Your task to perform on an android device: Is it going to rain today? Image 0: 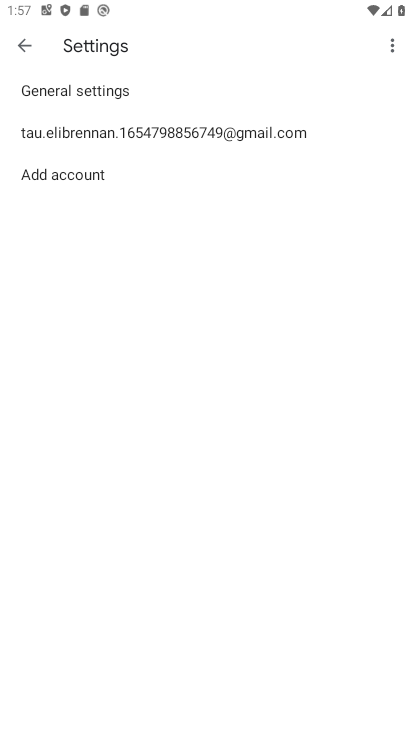
Step 0: press home button
Your task to perform on an android device: Is it going to rain today? Image 1: 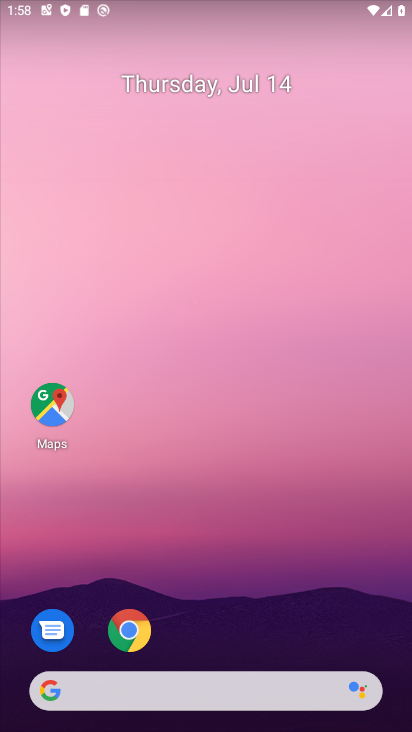
Step 1: drag from (311, 657) to (298, 157)
Your task to perform on an android device: Is it going to rain today? Image 2: 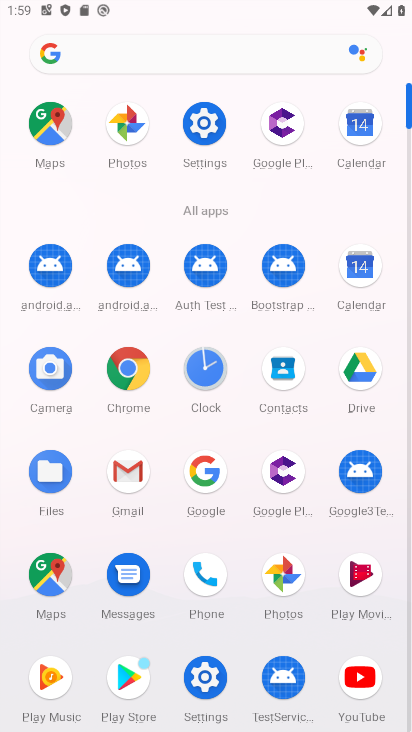
Step 2: click (135, 391)
Your task to perform on an android device: Is it going to rain today? Image 3: 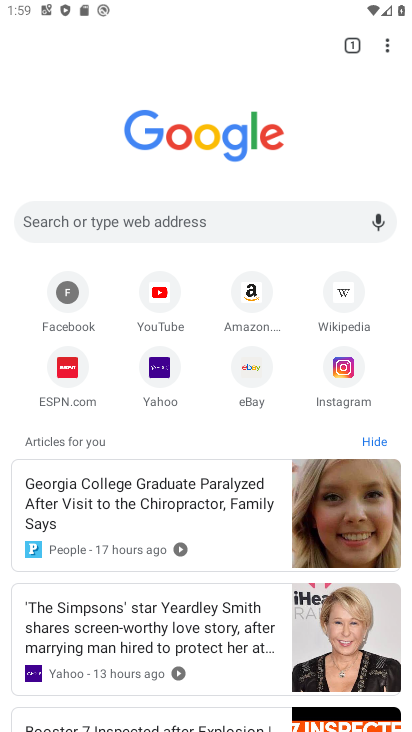
Step 3: click (186, 228)
Your task to perform on an android device: Is it going to rain today? Image 4: 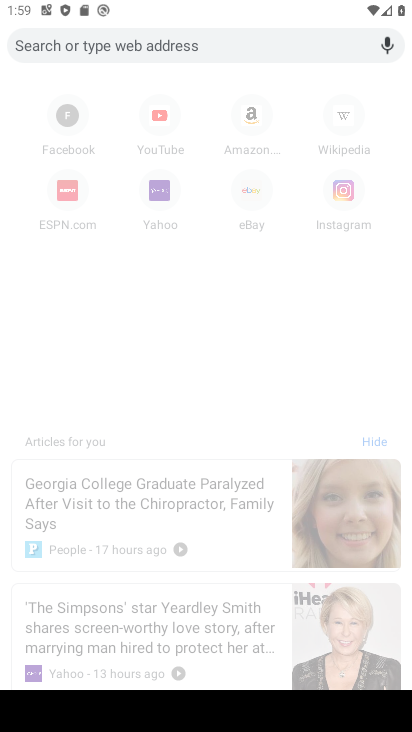
Step 4: type "weather"
Your task to perform on an android device: Is it going to rain today? Image 5: 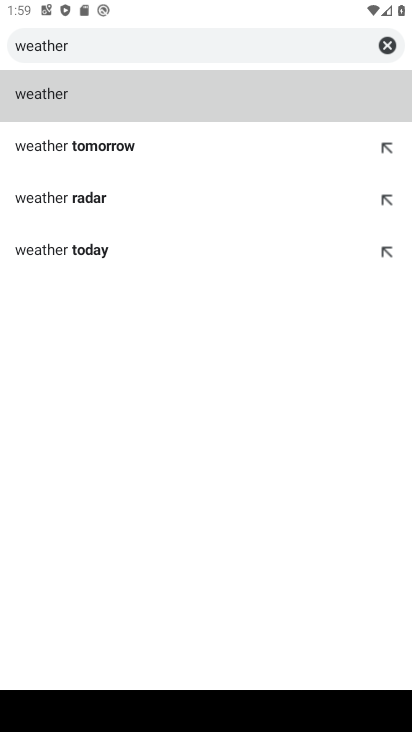
Step 5: click (65, 97)
Your task to perform on an android device: Is it going to rain today? Image 6: 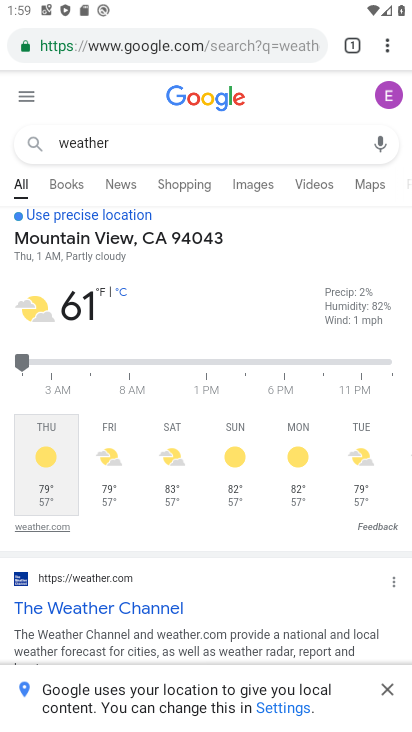
Step 6: task complete